Your task to perform on an android device: clear history in the chrome app Image 0: 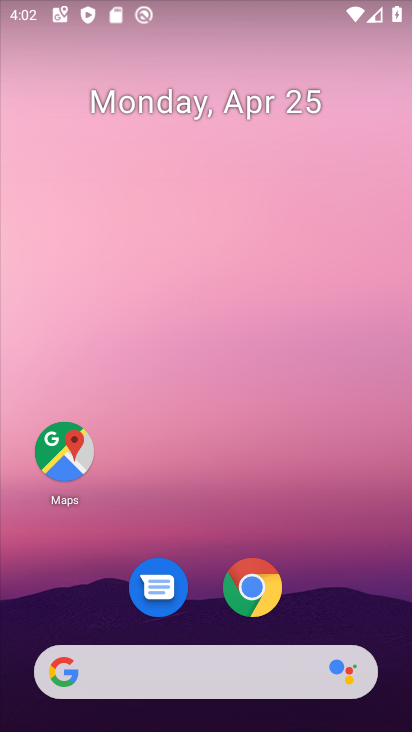
Step 0: click (253, 590)
Your task to perform on an android device: clear history in the chrome app Image 1: 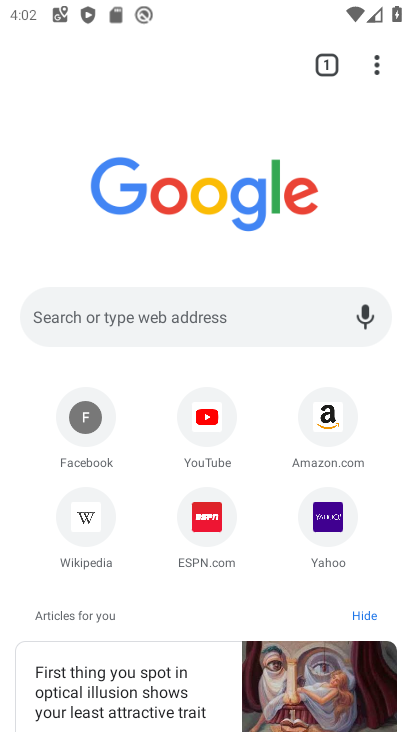
Step 1: drag from (376, 64) to (150, 551)
Your task to perform on an android device: clear history in the chrome app Image 2: 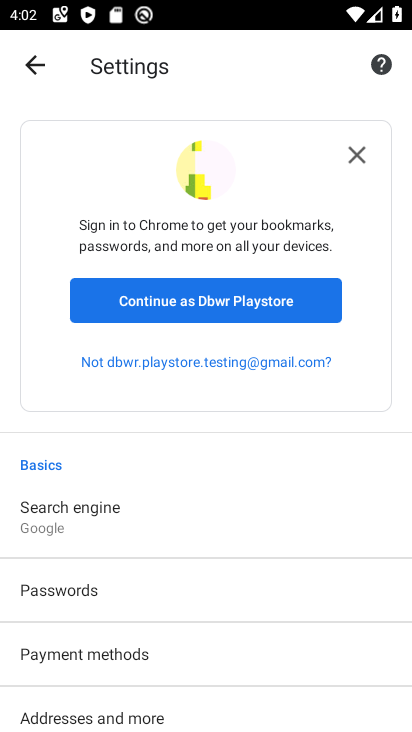
Step 2: drag from (204, 564) to (191, 135)
Your task to perform on an android device: clear history in the chrome app Image 3: 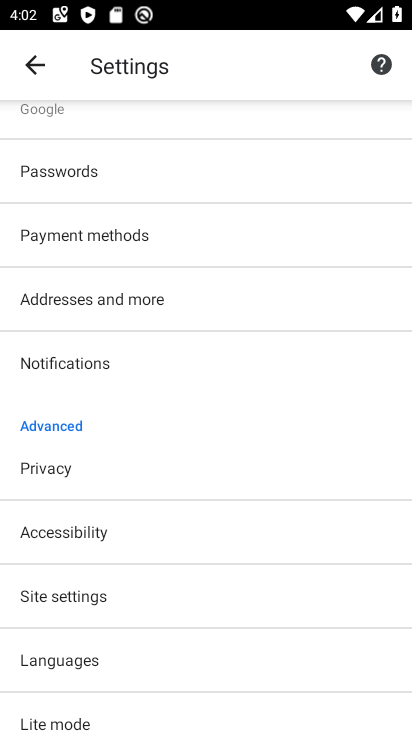
Step 3: click (54, 461)
Your task to perform on an android device: clear history in the chrome app Image 4: 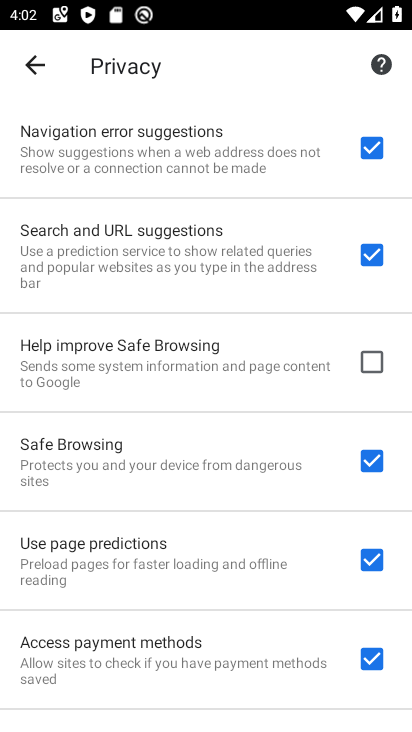
Step 4: drag from (131, 616) to (183, 120)
Your task to perform on an android device: clear history in the chrome app Image 5: 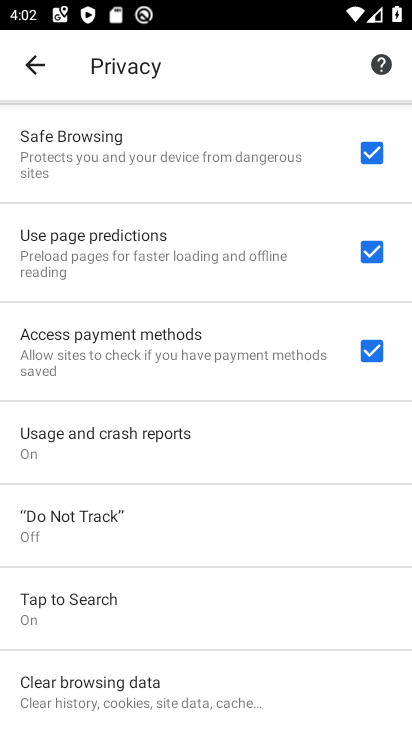
Step 5: click (110, 696)
Your task to perform on an android device: clear history in the chrome app Image 6: 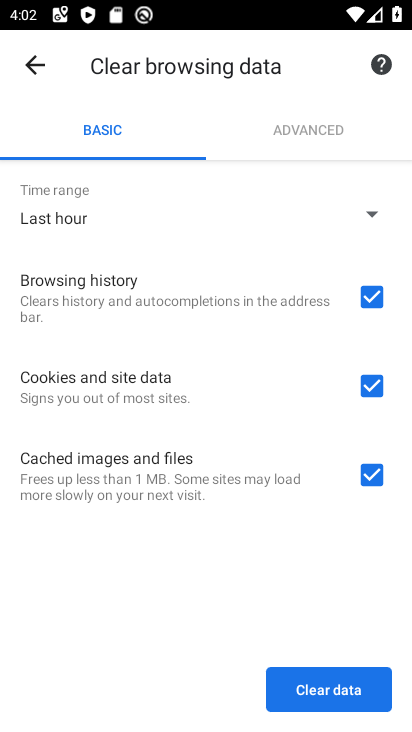
Step 6: click (374, 299)
Your task to perform on an android device: clear history in the chrome app Image 7: 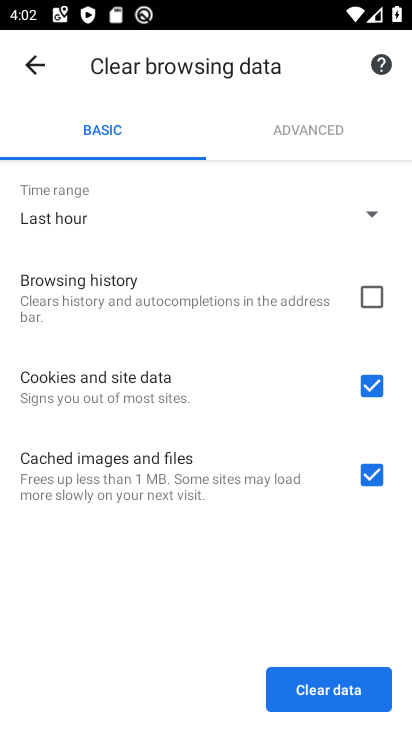
Step 7: click (374, 276)
Your task to perform on an android device: clear history in the chrome app Image 8: 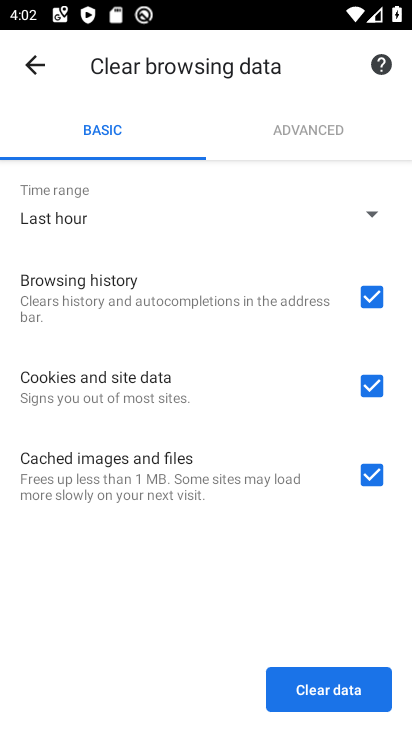
Step 8: click (372, 396)
Your task to perform on an android device: clear history in the chrome app Image 9: 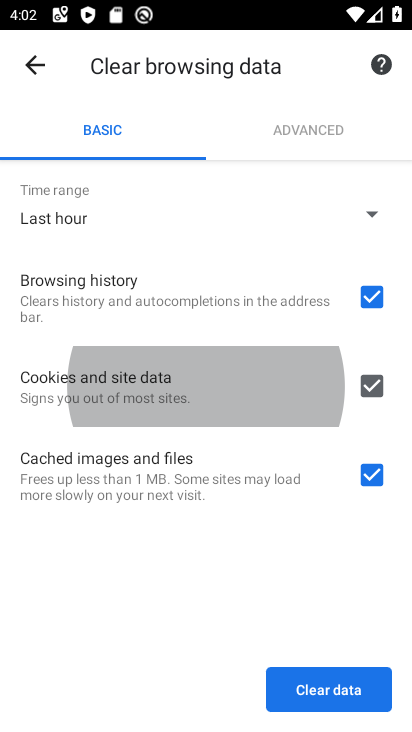
Step 9: click (377, 470)
Your task to perform on an android device: clear history in the chrome app Image 10: 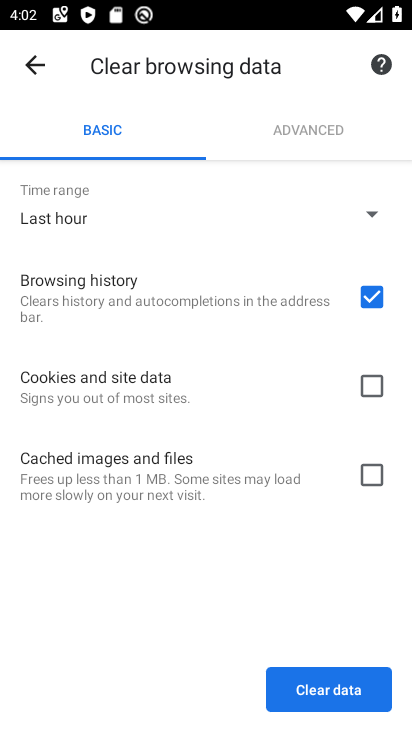
Step 10: click (324, 692)
Your task to perform on an android device: clear history in the chrome app Image 11: 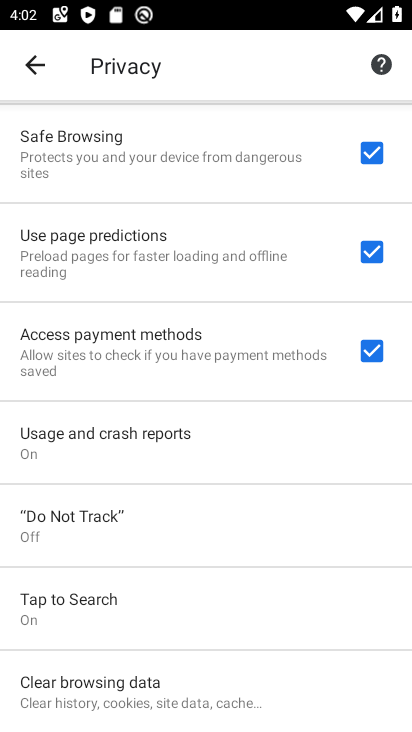
Step 11: task complete